Your task to perform on an android device: Open settings on Google Maps Image 0: 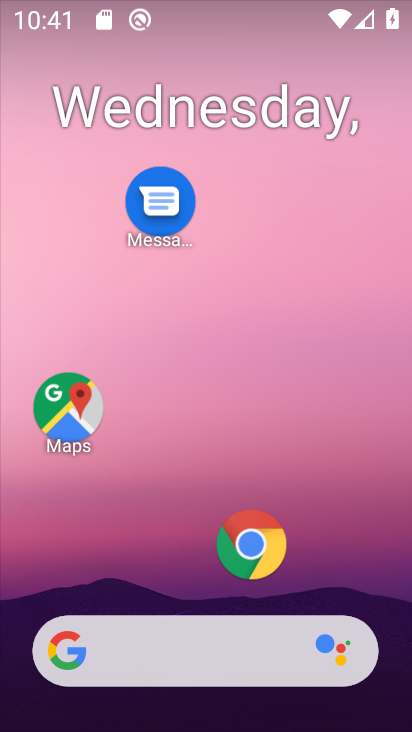
Step 0: click (81, 409)
Your task to perform on an android device: Open settings on Google Maps Image 1: 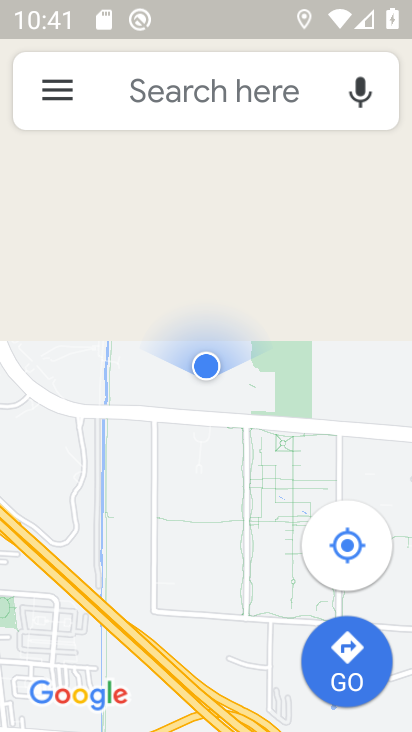
Step 1: click (65, 85)
Your task to perform on an android device: Open settings on Google Maps Image 2: 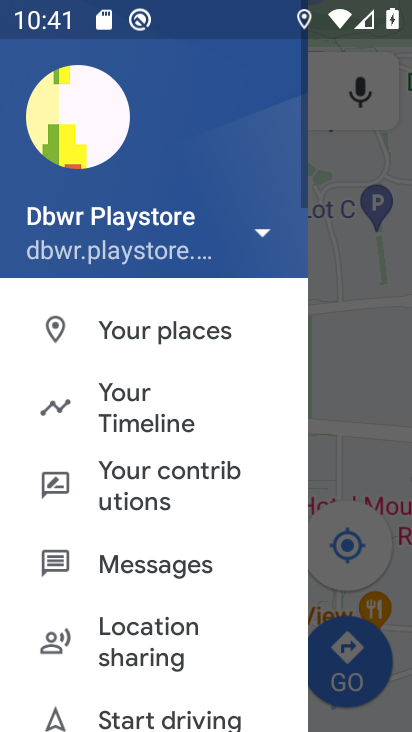
Step 2: drag from (138, 578) to (172, 282)
Your task to perform on an android device: Open settings on Google Maps Image 3: 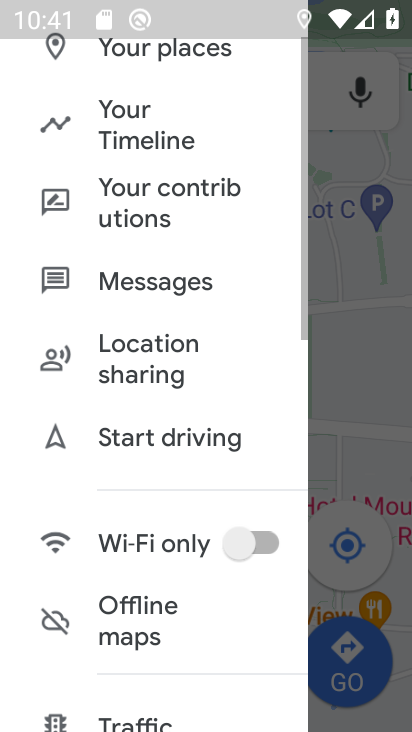
Step 3: drag from (155, 678) to (169, 323)
Your task to perform on an android device: Open settings on Google Maps Image 4: 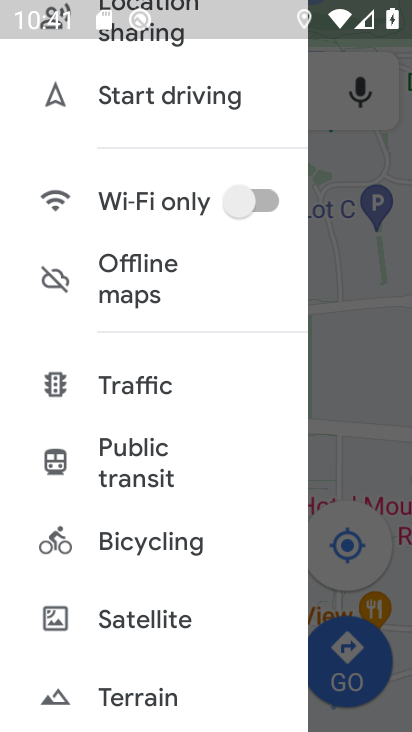
Step 4: drag from (164, 635) to (183, 421)
Your task to perform on an android device: Open settings on Google Maps Image 5: 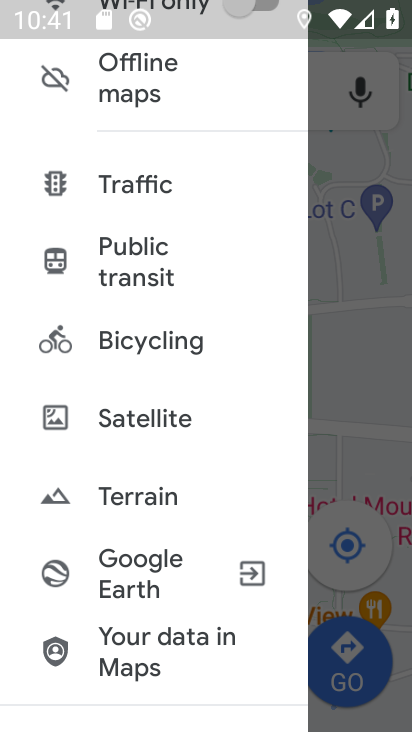
Step 5: drag from (174, 582) to (181, 358)
Your task to perform on an android device: Open settings on Google Maps Image 6: 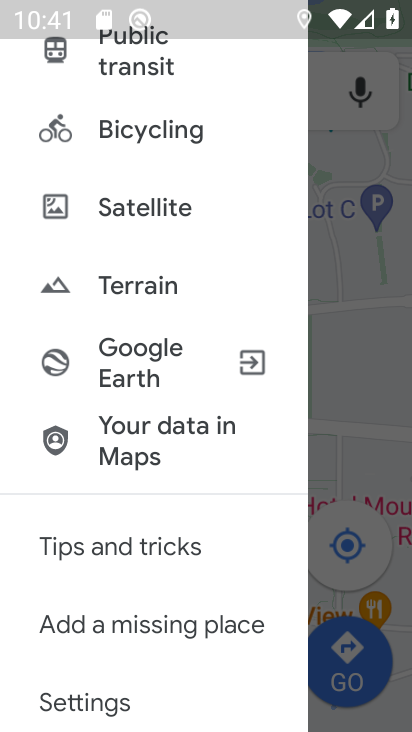
Step 6: click (123, 694)
Your task to perform on an android device: Open settings on Google Maps Image 7: 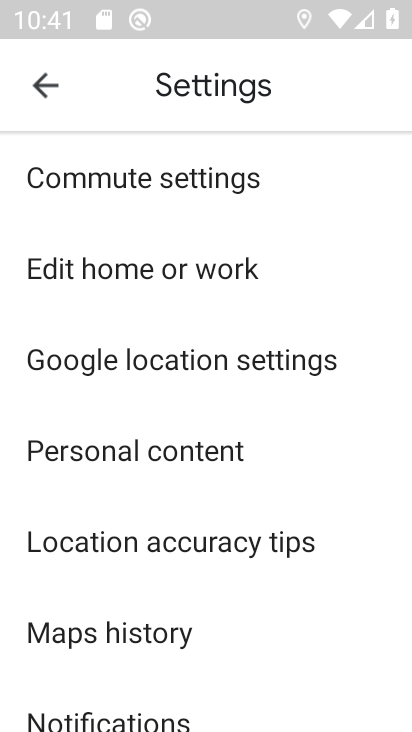
Step 7: task complete